Your task to perform on an android device: Go to display settings Image 0: 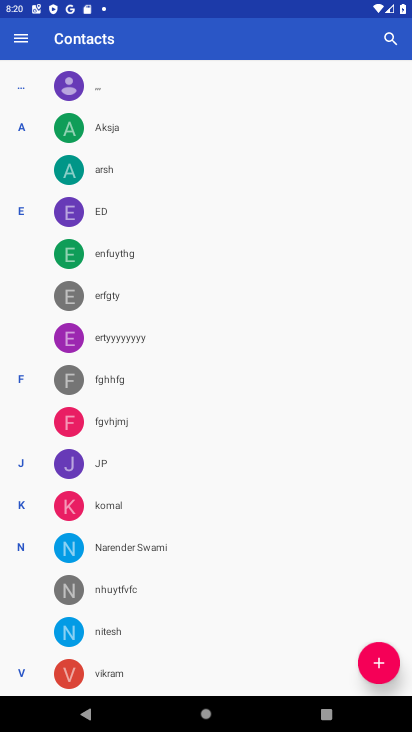
Step 0: press home button
Your task to perform on an android device: Go to display settings Image 1: 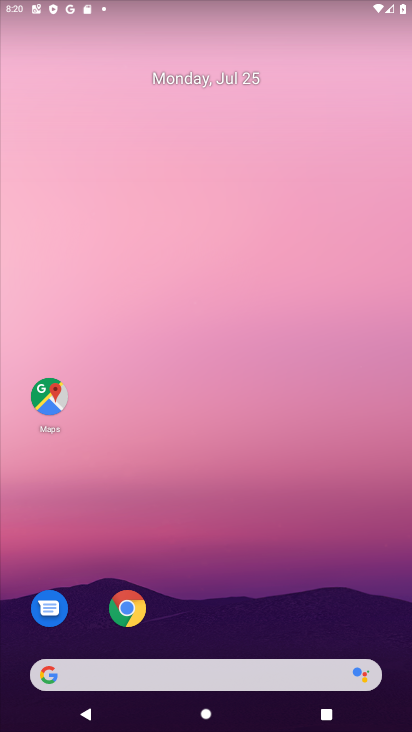
Step 1: drag from (224, 658) to (260, 6)
Your task to perform on an android device: Go to display settings Image 2: 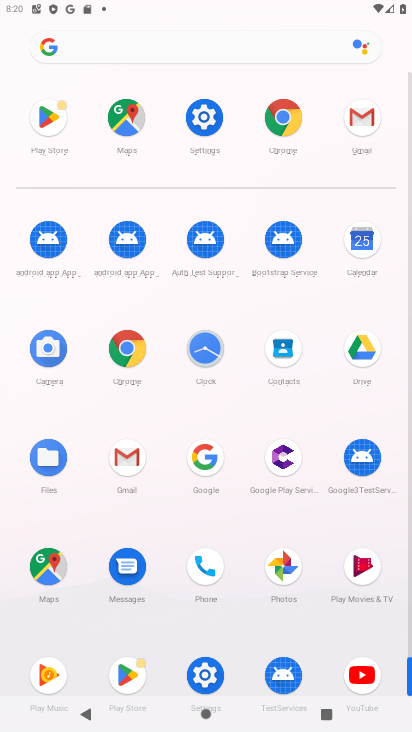
Step 2: click (211, 139)
Your task to perform on an android device: Go to display settings Image 3: 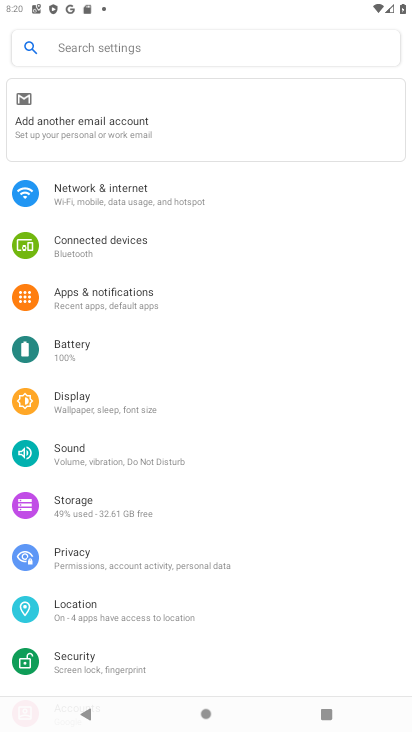
Step 3: click (141, 402)
Your task to perform on an android device: Go to display settings Image 4: 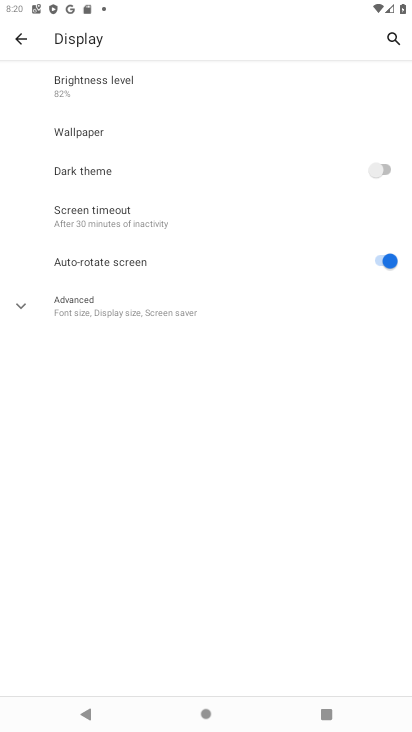
Step 4: click (161, 309)
Your task to perform on an android device: Go to display settings Image 5: 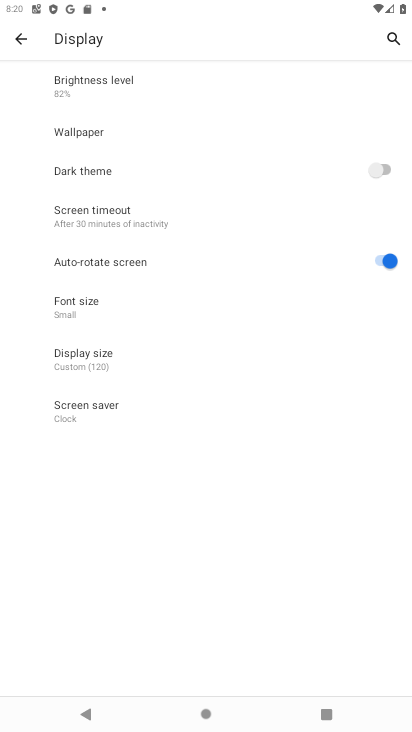
Step 5: task complete